Your task to perform on an android device: change timer sound Image 0: 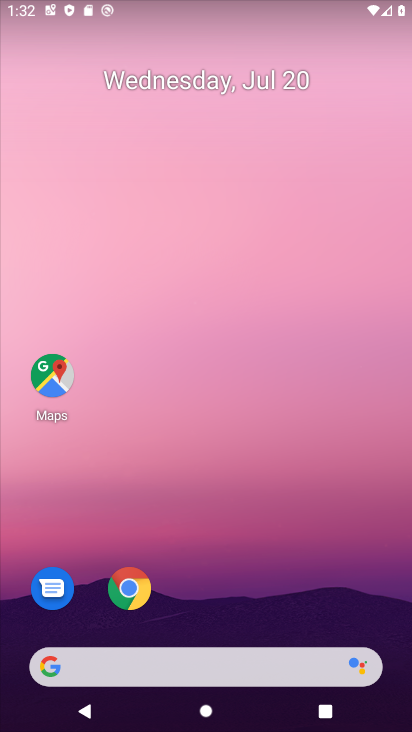
Step 0: drag from (387, 617) to (136, 9)
Your task to perform on an android device: change timer sound Image 1: 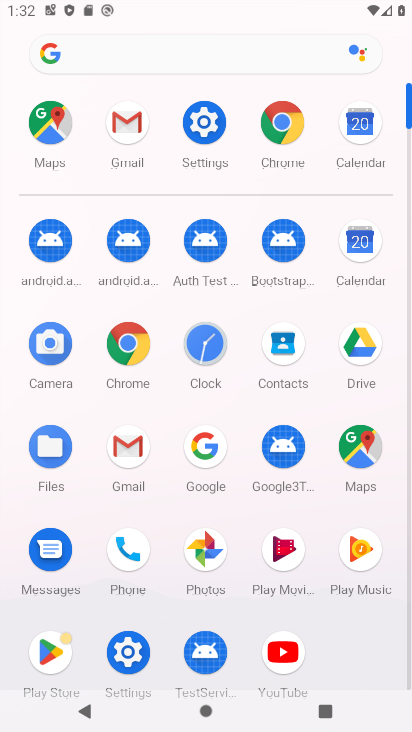
Step 1: click (206, 331)
Your task to perform on an android device: change timer sound Image 2: 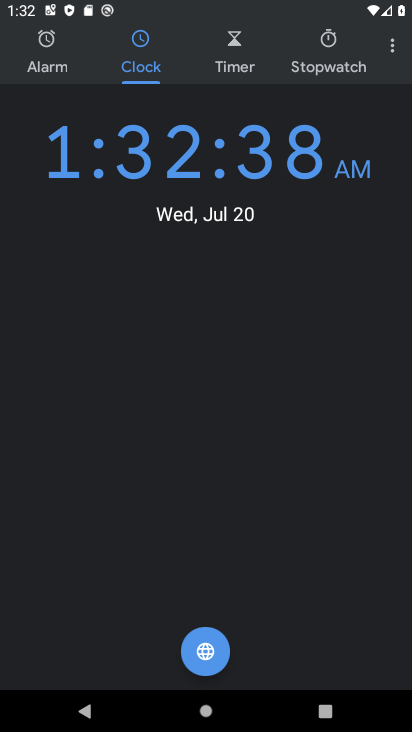
Step 2: click (388, 59)
Your task to perform on an android device: change timer sound Image 3: 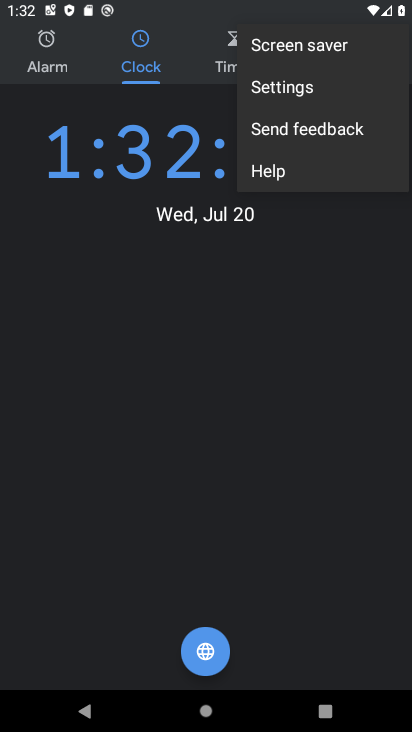
Step 3: click (273, 93)
Your task to perform on an android device: change timer sound Image 4: 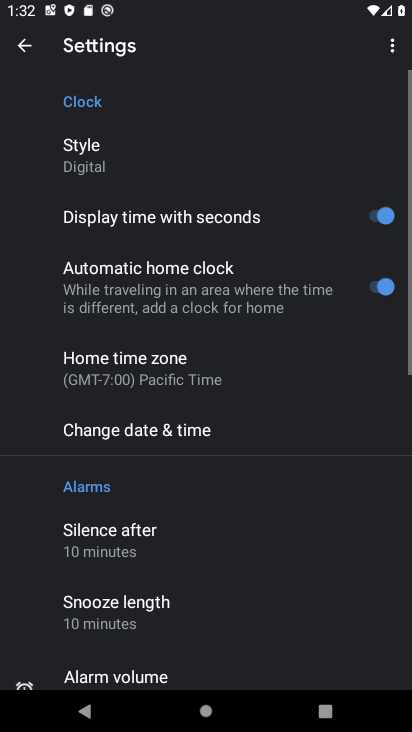
Step 4: drag from (168, 635) to (230, 87)
Your task to perform on an android device: change timer sound Image 5: 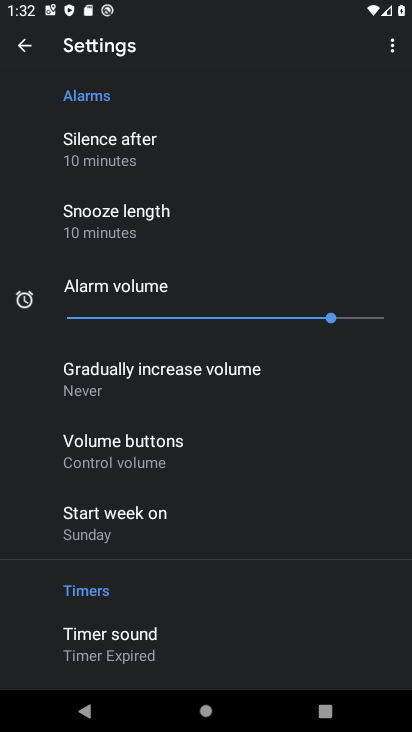
Step 5: click (164, 643)
Your task to perform on an android device: change timer sound Image 6: 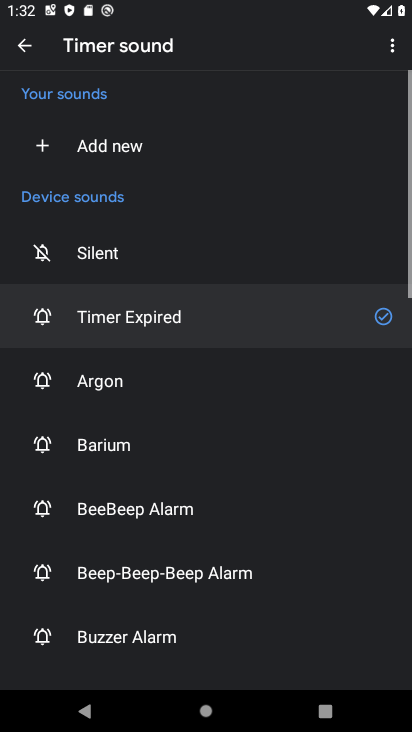
Step 6: click (120, 383)
Your task to perform on an android device: change timer sound Image 7: 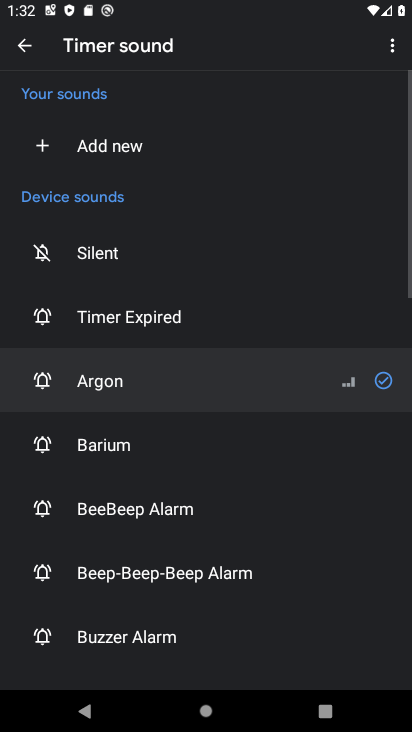
Step 7: task complete